Your task to perform on an android device: change the clock display to show seconds Image 0: 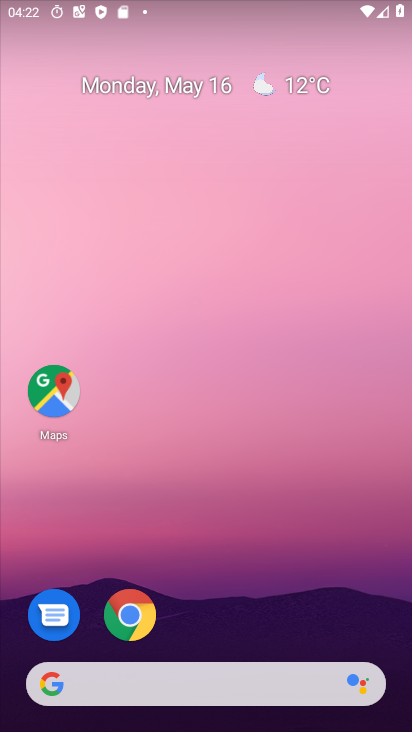
Step 0: drag from (241, 485) to (170, 132)
Your task to perform on an android device: change the clock display to show seconds Image 1: 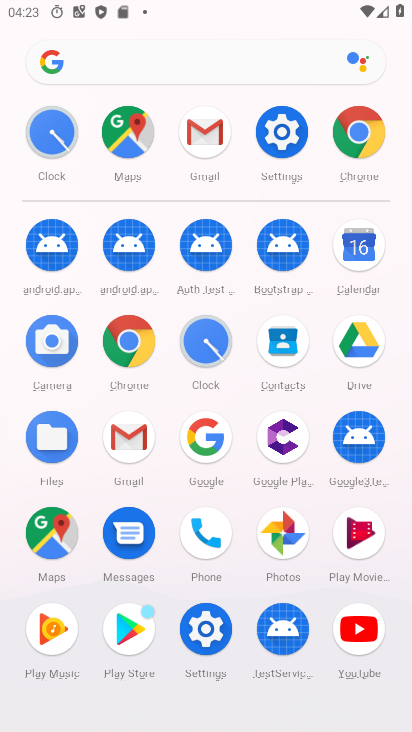
Step 1: click (199, 345)
Your task to perform on an android device: change the clock display to show seconds Image 2: 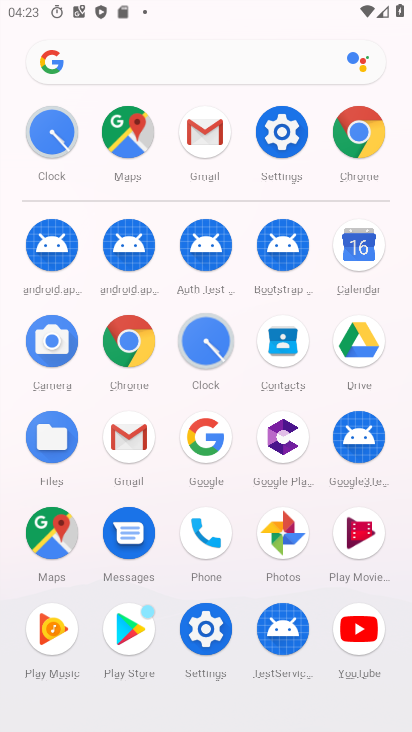
Step 2: click (200, 344)
Your task to perform on an android device: change the clock display to show seconds Image 3: 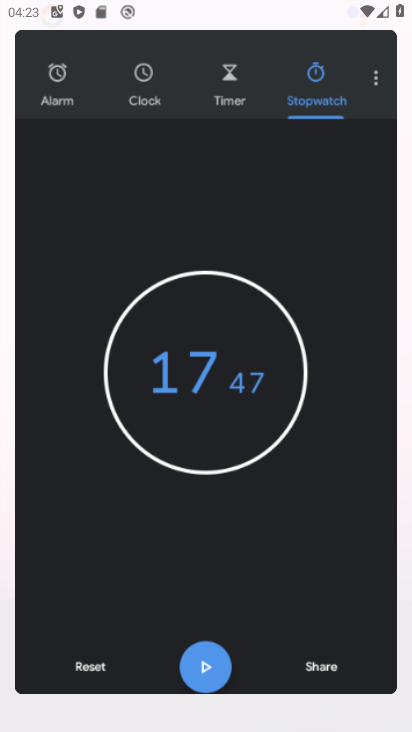
Step 3: click (200, 344)
Your task to perform on an android device: change the clock display to show seconds Image 4: 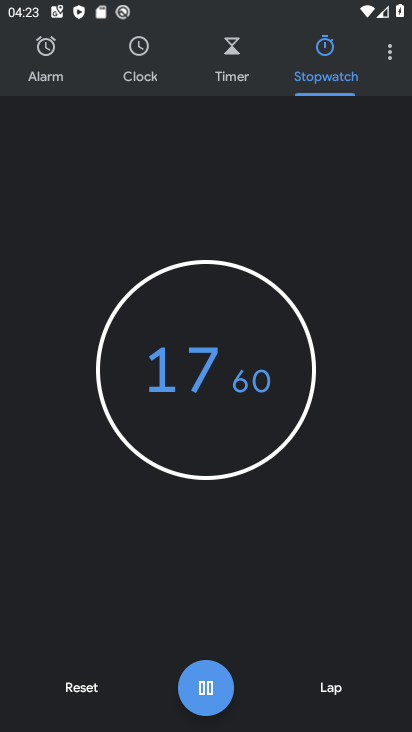
Step 4: click (174, 357)
Your task to perform on an android device: change the clock display to show seconds Image 5: 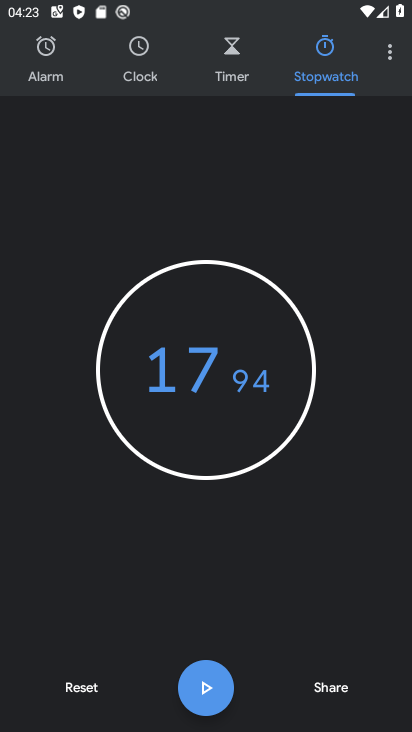
Step 5: click (400, 61)
Your task to perform on an android device: change the clock display to show seconds Image 6: 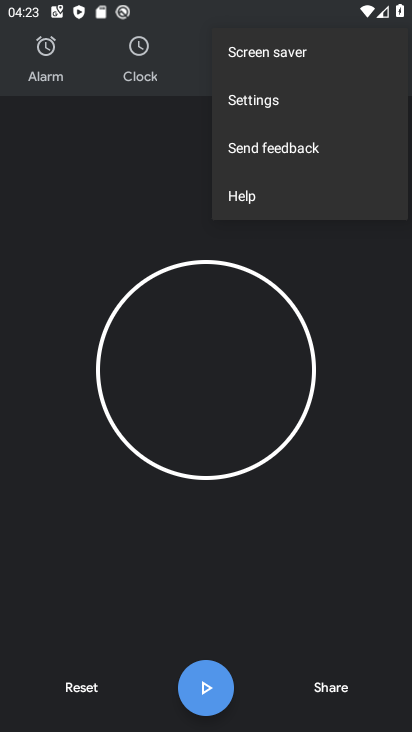
Step 6: click (258, 108)
Your task to perform on an android device: change the clock display to show seconds Image 7: 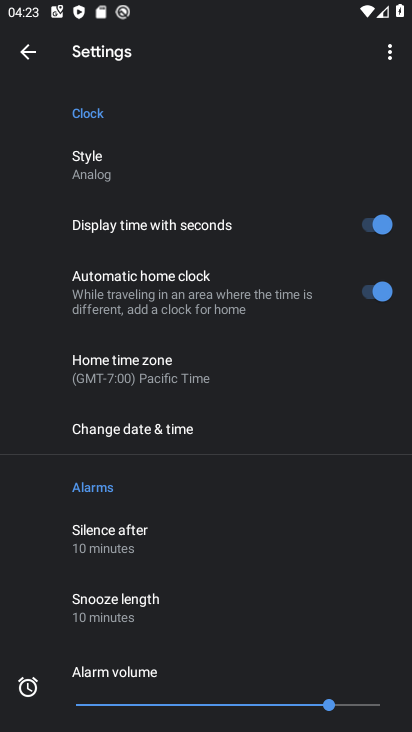
Step 7: click (127, 163)
Your task to perform on an android device: change the clock display to show seconds Image 8: 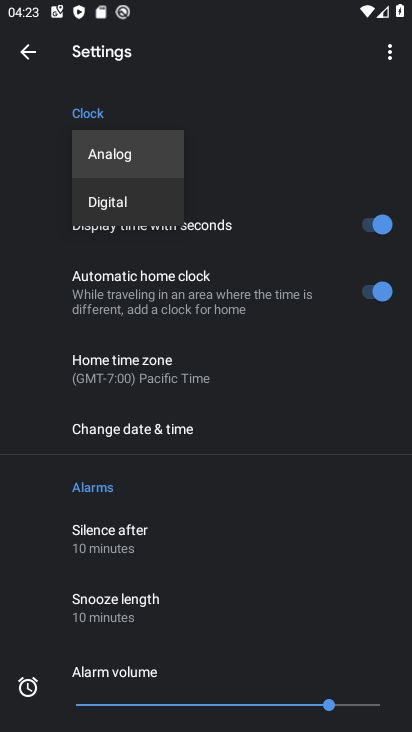
Step 8: click (234, 404)
Your task to perform on an android device: change the clock display to show seconds Image 9: 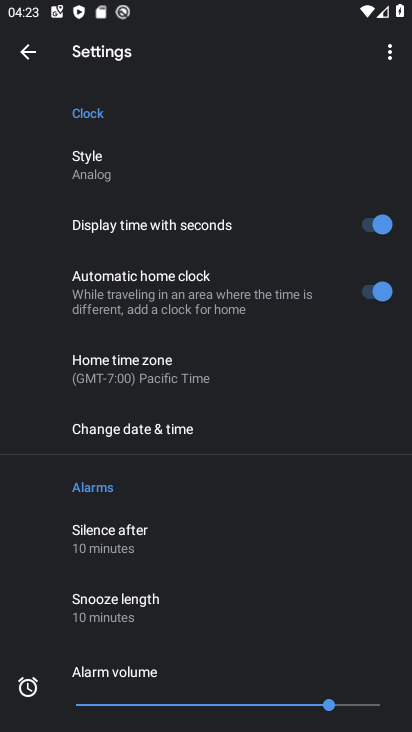
Step 9: click (379, 225)
Your task to perform on an android device: change the clock display to show seconds Image 10: 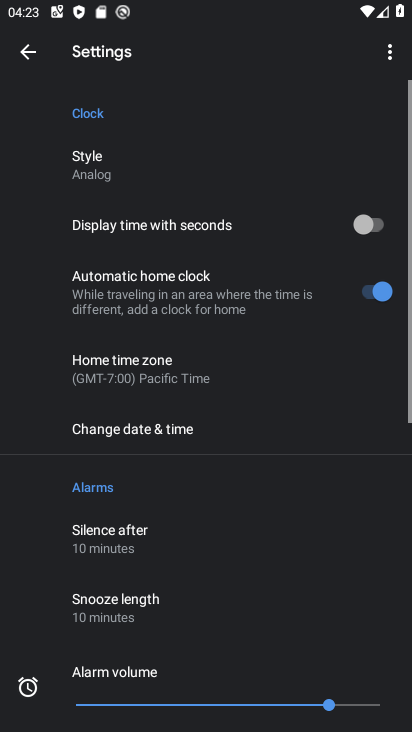
Step 10: click (369, 224)
Your task to perform on an android device: change the clock display to show seconds Image 11: 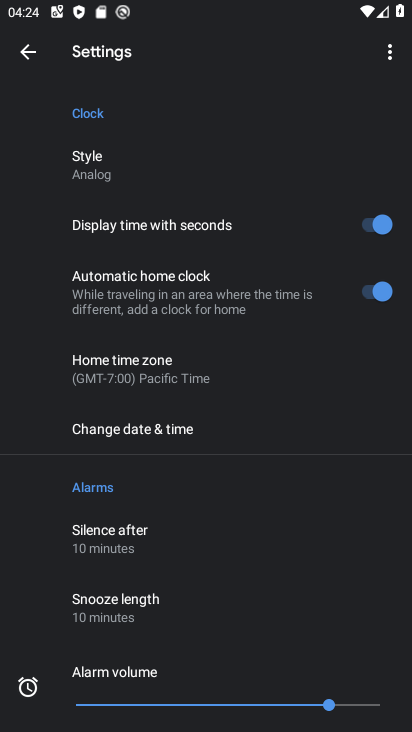
Step 11: task complete